Your task to perform on an android device: open app "The Home Depot" (install if not already installed) Image 0: 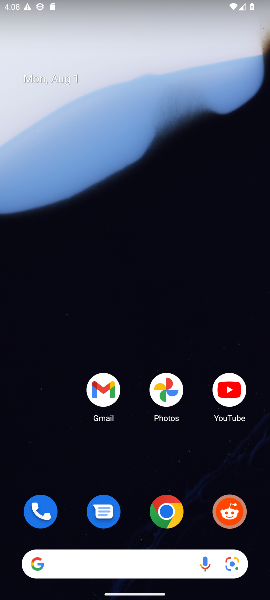
Step 0: drag from (141, 492) to (117, 116)
Your task to perform on an android device: open app "The Home Depot" (install if not already installed) Image 1: 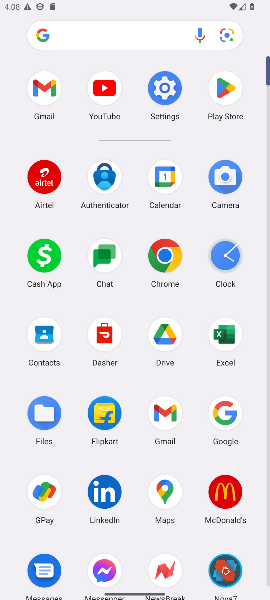
Step 1: click (228, 81)
Your task to perform on an android device: open app "The Home Depot" (install if not already installed) Image 2: 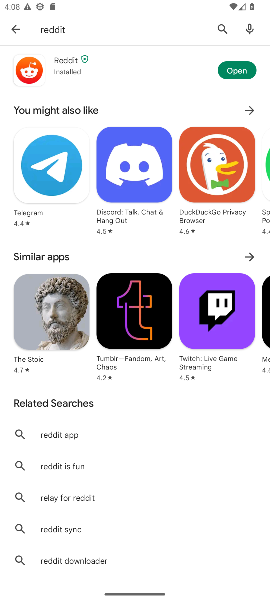
Step 2: click (18, 29)
Your task to perform on an android device: open app "The Home Depot" (install if not already installed) Image 3: 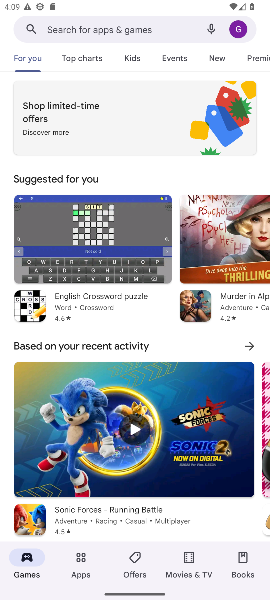
Step 3: click (100, 27)
Your task to perform on an android device: open app "The Home Depot" (install if not already installed) Image 4: 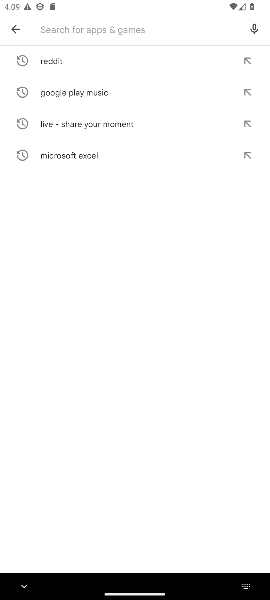
Step 4: type "The Home Depot"
Your task to perform on an android device: open app "The Home Depot" (install if not already installed) Image 5: 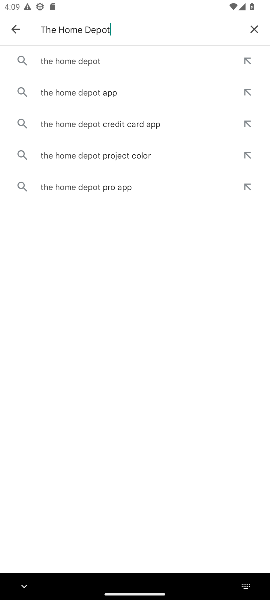
Step 5: click (82, 55)
Your task to perform on an android device: open app "The Home Depot" (install if not already installed) Image 6: 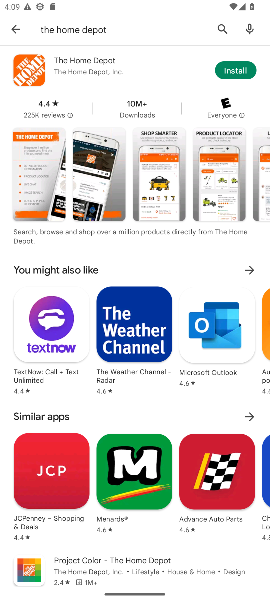
Step 6: click (241, 73)
Your task to perform on an android device: open app "The Home Depot" (install if not already installed) Image 7: 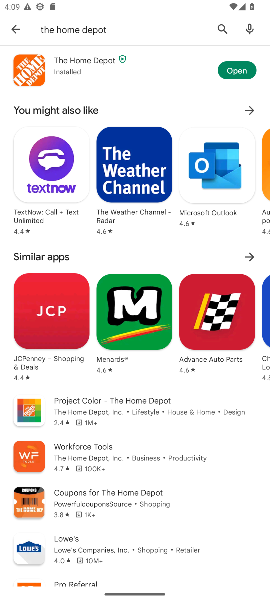
Step 7: click (241, 72)
Your task to perform on an android device: open app "The Home Depot" (install if not already installed) Image 8: 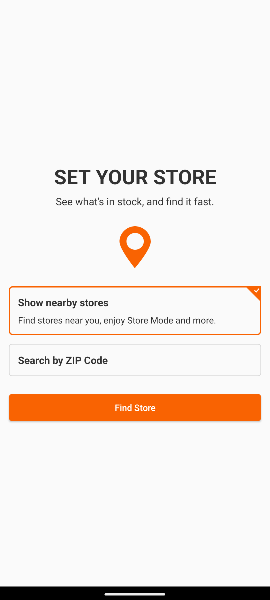
Step 8: task complete